Your task to perform on an android device: Go to accessibility settings Image 0: 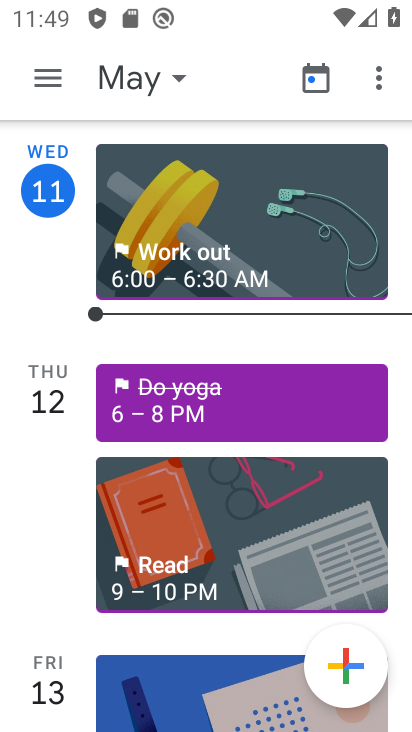
Step 0: press home button
Your task to perform on an android device: Go to accessibility settings Image 1: 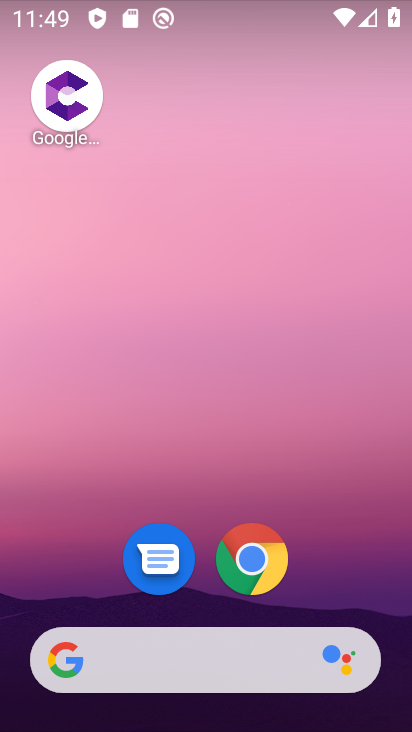
Step 1: drag from (310, 591) to (277, 113)
Your task to perform on an android device: Go to accessibility settings Image 2: 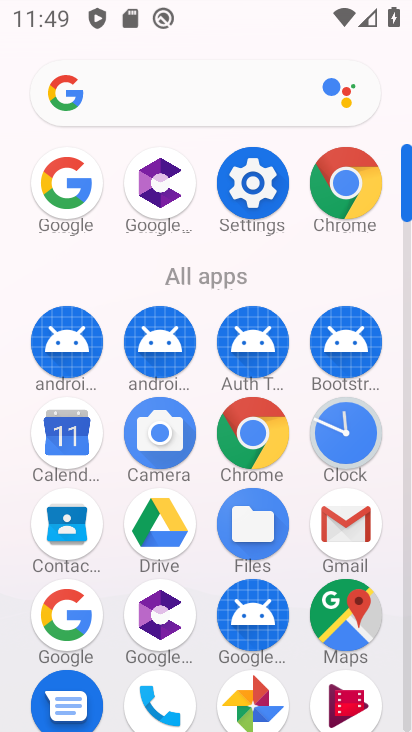
Step 2: click (251, 209)
Your task to perform on an android device: Go to accessibility settings Image 3: 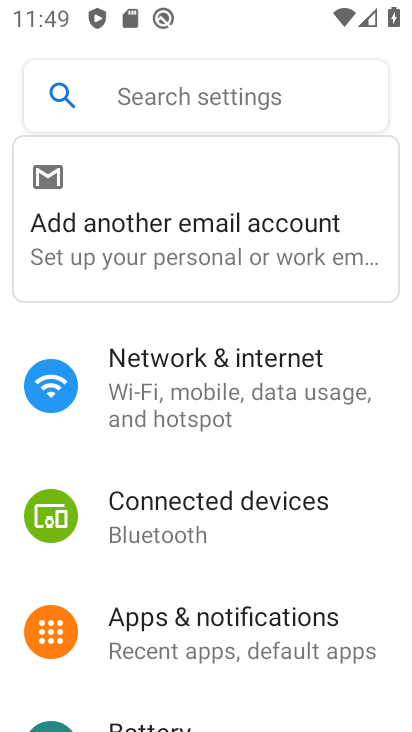
Step 3: drag from (241, 630) to (196, 197)
Your task to perform on an android device: Go to accessibility settings Image 4: 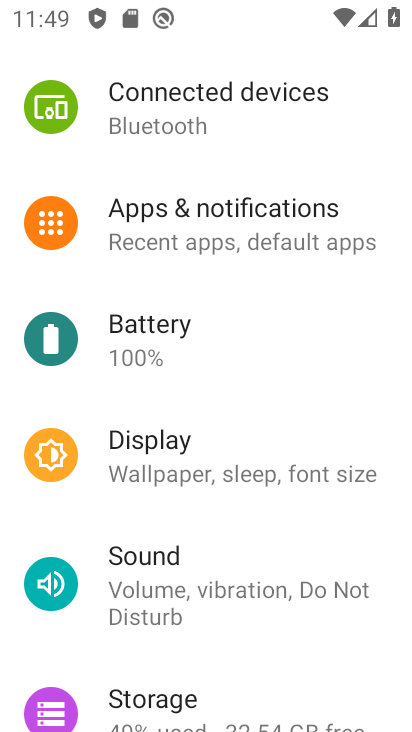
Step 4: drag from (194, 543) to (162, 123)
Your task to perform on an android device: Go to accessibility settings Image 5: 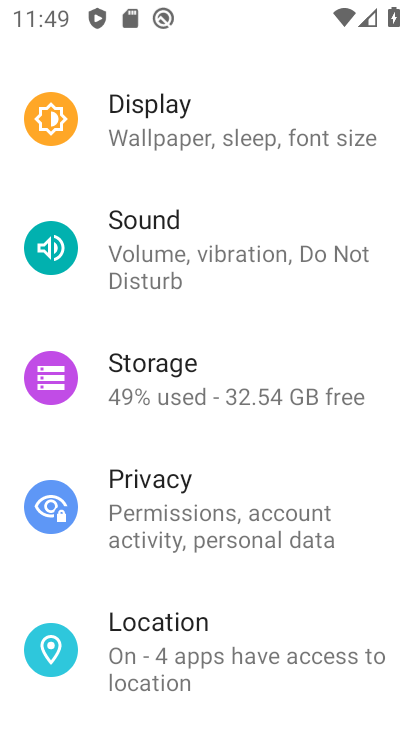
Step 5: drag from (211, 674) to (179, 326)
Your task to perform on an android device: Go to accessibility settings Image 6: 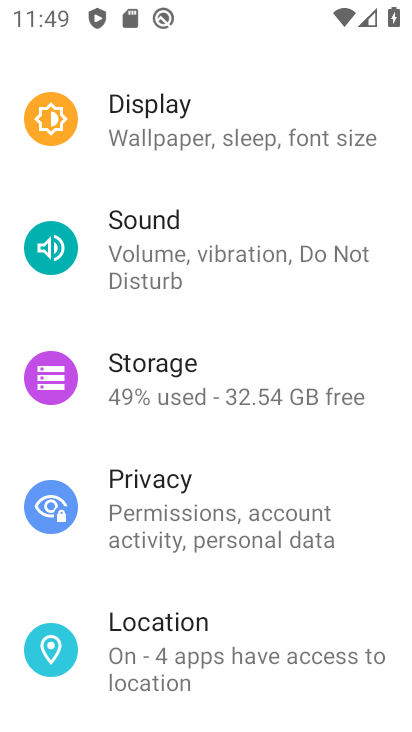
Step 6: drag from (225, 689) to (247, 206)
Your task to perform on an android device: Go to accessibility settings Image 7: 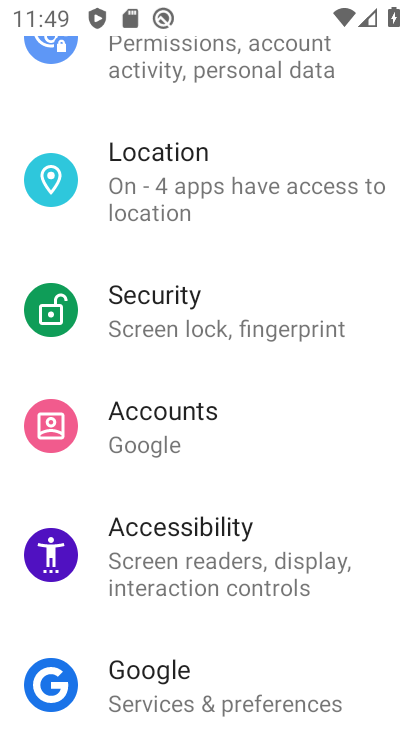
Step 7: click (200, 581)
Your task to perform on an android device: Go to accessibility settings Image 8: 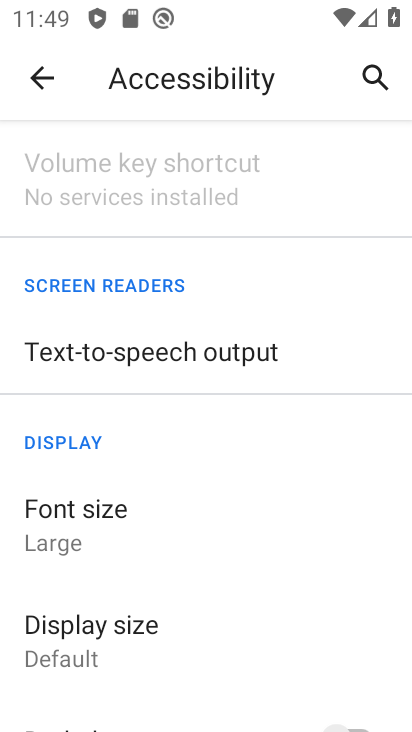
Step 8: task complete